Your task to perform on an android device: Check the weather Image 0: 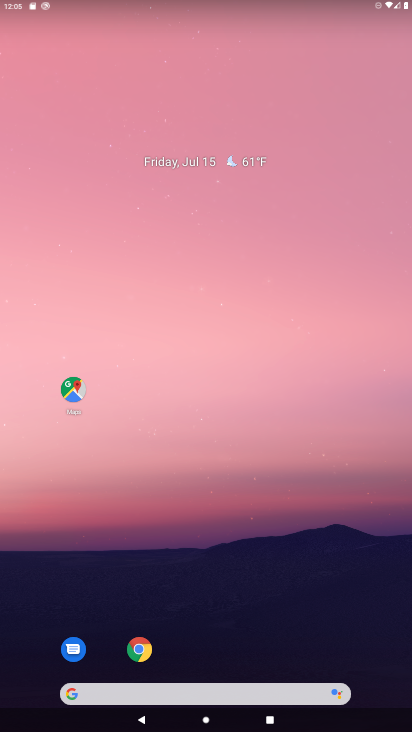
Step 0: click (120, 692)
Your task to perform on an android device: Check the weather Image 1: 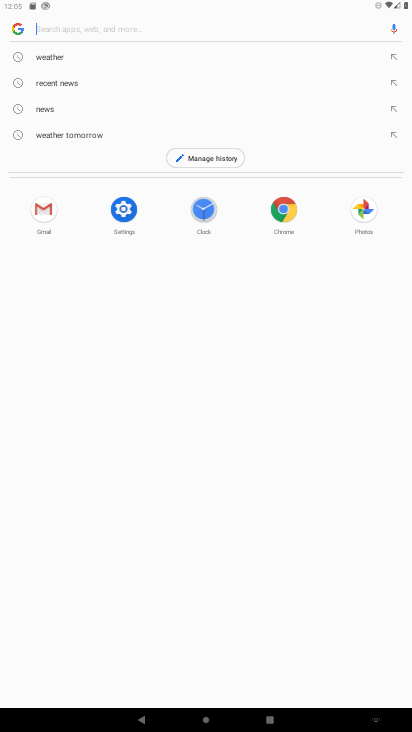
Step 1: click (45, 50)
Your task to perform on an android device: Check the weather Image 2: 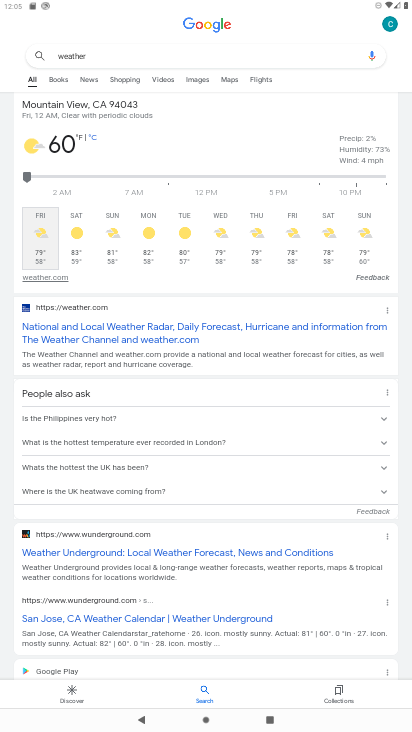
Step 2: task complete